Your task to perform on an android device: search for starred emails in the gmail app Image 0: 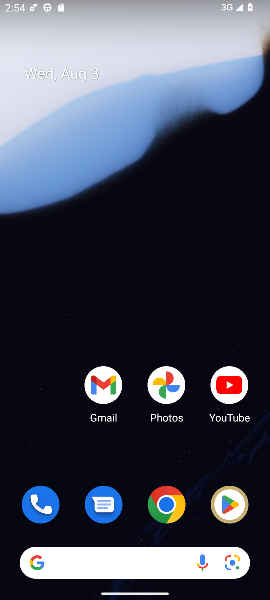
Step 0: drag from (64, 455) to (54, 57)
Your task to perform on an android device: search for starred emails in the gmail app Image 1: 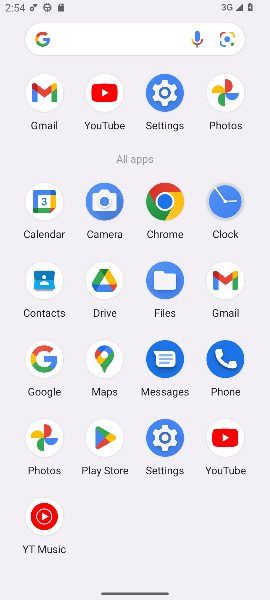
Step 1: click (46, 85)
Your task to perform on an android device: search for starred emails in the gmail app Image 2: 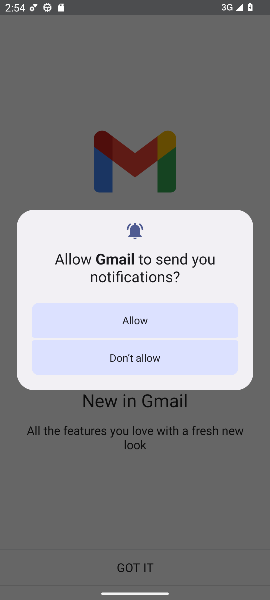
Step 2: click (153, 369)
Your task to perform on an android device: search for starred emails in the gmail app Image 3: 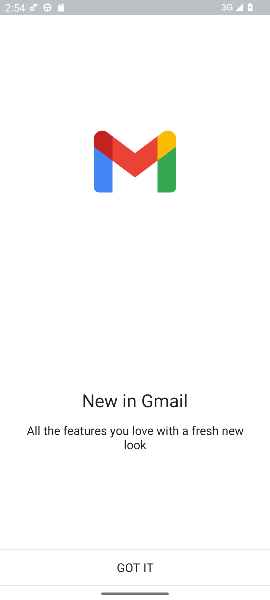
Step 3: click (131, 557)
Your task to perform on an android device: search for starred emails in the gmail app Image 4: 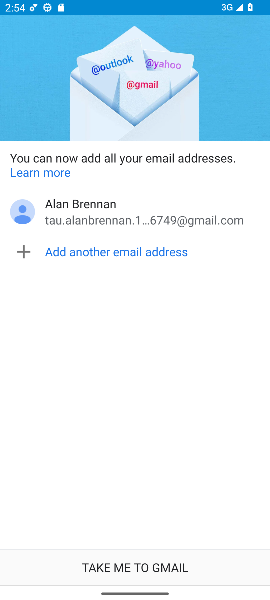
Step 4: click (131, 552)
Your task to perform on an android device: search for starred emails in the gmail app Image 5: 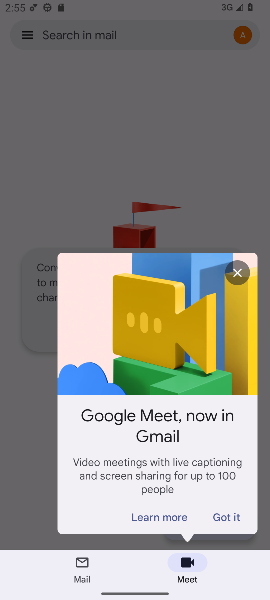
Step 5: click (86, 569)
Your task to perform on an android device: search for starred emails in the gmail app Image 6: 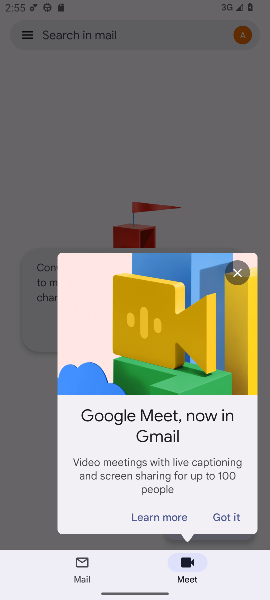
Step 6: click (232, 524)
Your task to perform on an android device: search for starred emails in the gmail app Image 7: 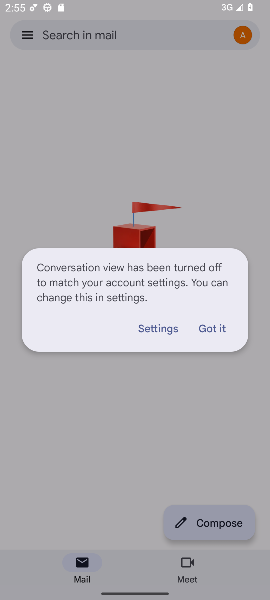
Step 7: click (215, 330)
Your task to perform on an android device: search for starred emails in the gmail app Image 8: 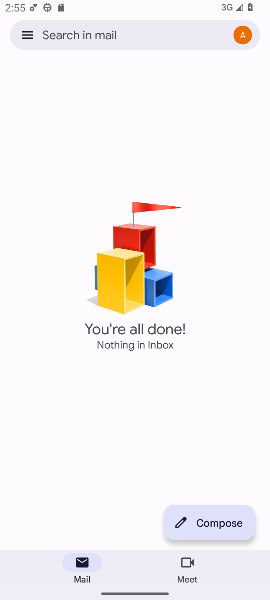
Step 8: click (29, 34)
Your task to perform on an android device: search for starred emails in the gmail app Image 9: 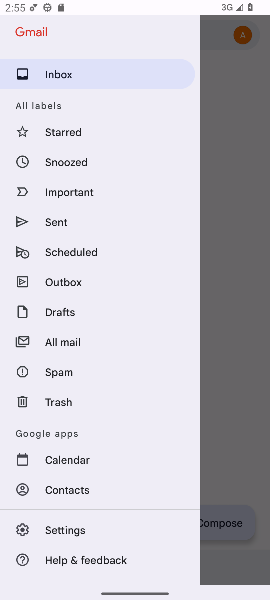
Step 9: click (62, 136)
Your task to perform on an android device: search for starred emails in the gmail app Image 10: 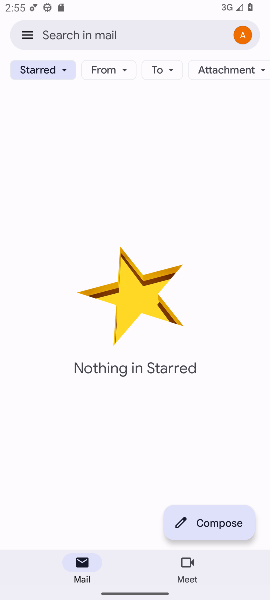
Step 10: task complete